Your task to perform on an android device: Go to battery settings Image 0: 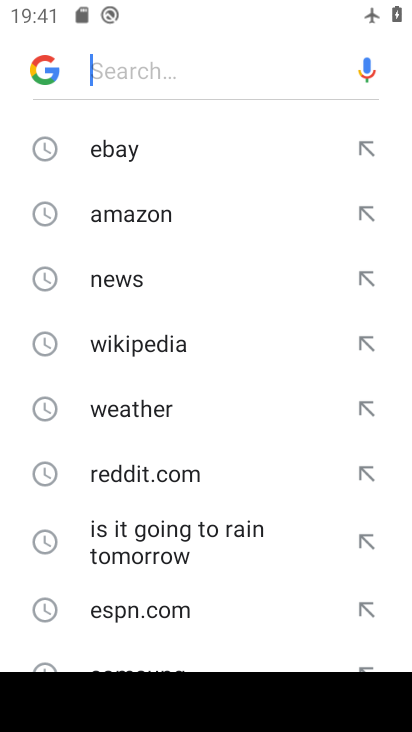
Step 0: press home button
Your task to perform on an android device: Go to battery settings Image 1: 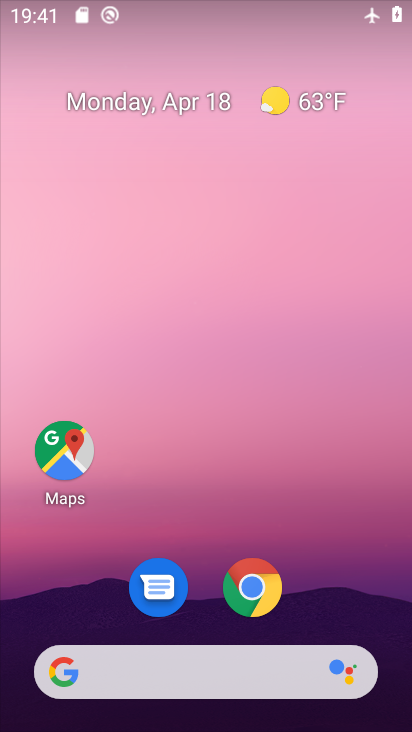
Step 1: drag from (317, 604) to (276, 26)
Your task to perform on an android device: Go to battery settings Image 2: 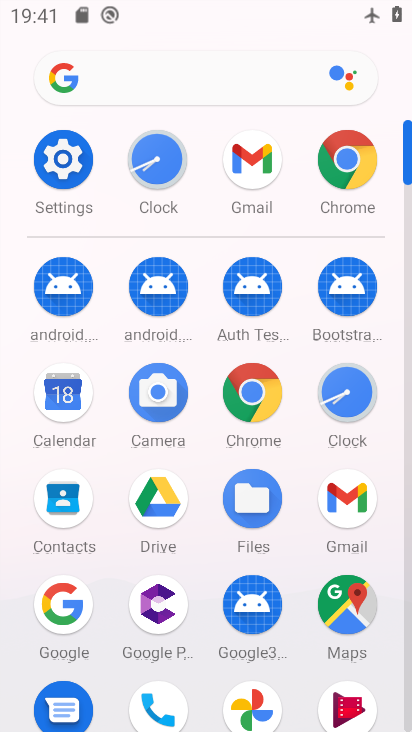
Step 2: click (63, 170)
Your task to perform on an android device: Go to battery settings Image 3: 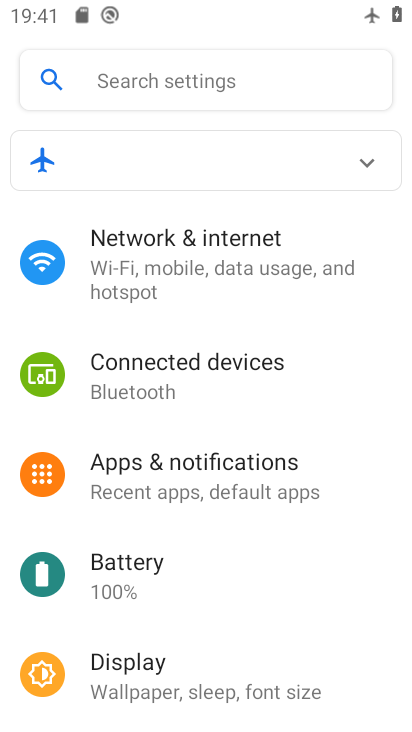
Step 3: click (184, 584)
Your task to perform on an android device: Go to battery settings Image 4: 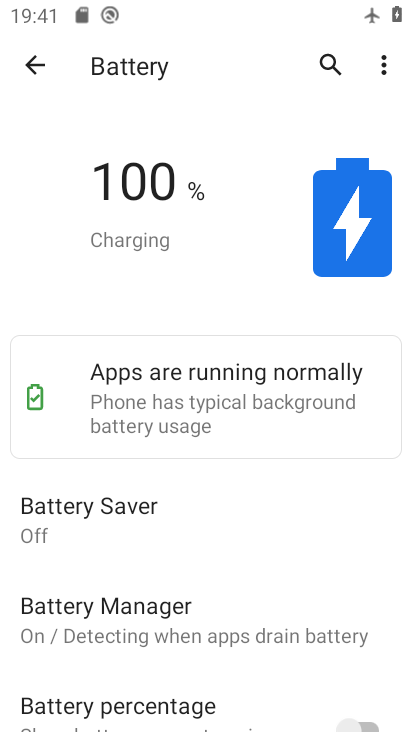
Step 4: task complete